Your task to perform on an android device: find snoozed emails in the gmail app Image 0: 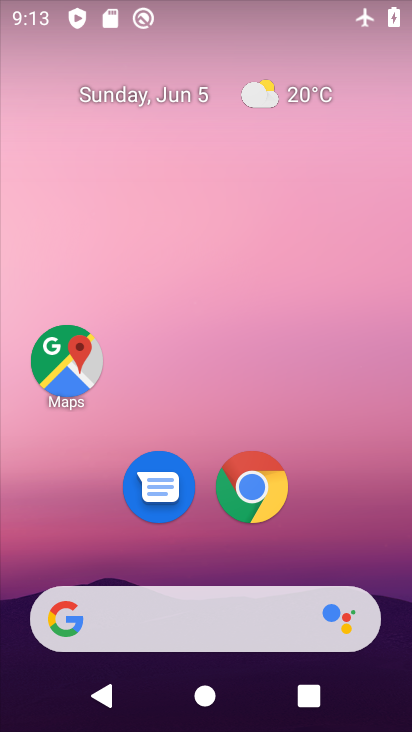
Step 0: drag from (352, 622) to (330, 149)
Your task to perform on an android device: find snoozed emails in the gmail app Image 1: 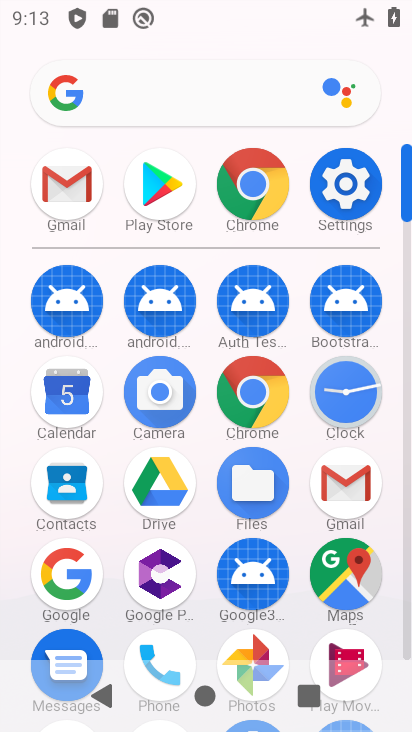
Step 1: click (370, 496)
Your task to perform on an android device: find snoozed emails in the gmail app Image 2: 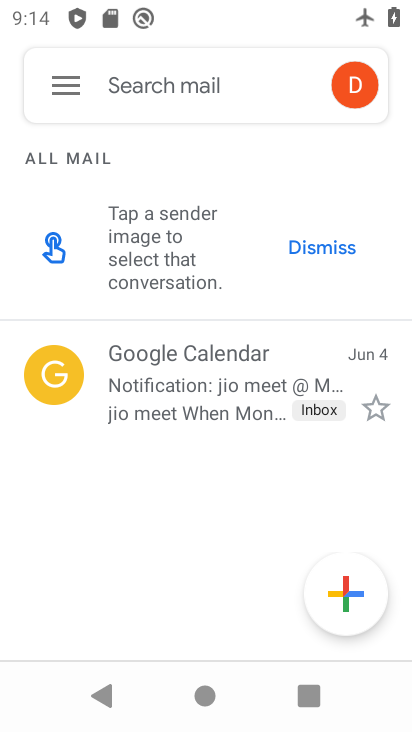
Step 2: click (73, 86)
Your task to perform on an android device: find snoozed emails in the gmail app Image 3: 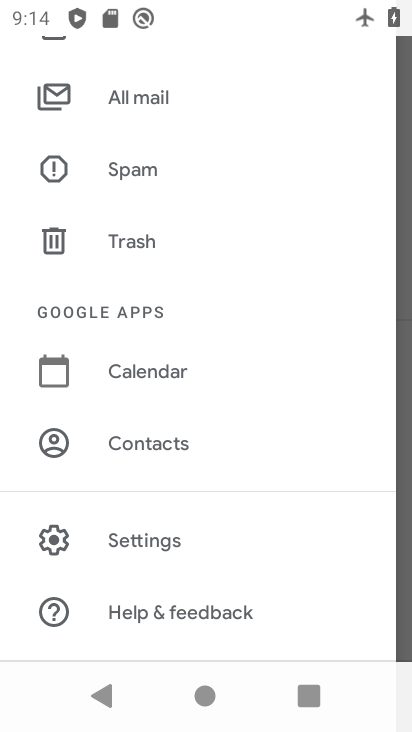
Step 3: drag from (108, 269) to (157, 617)
Your task to perform on an android device: find snoozed emails in the gmail app Image 4: 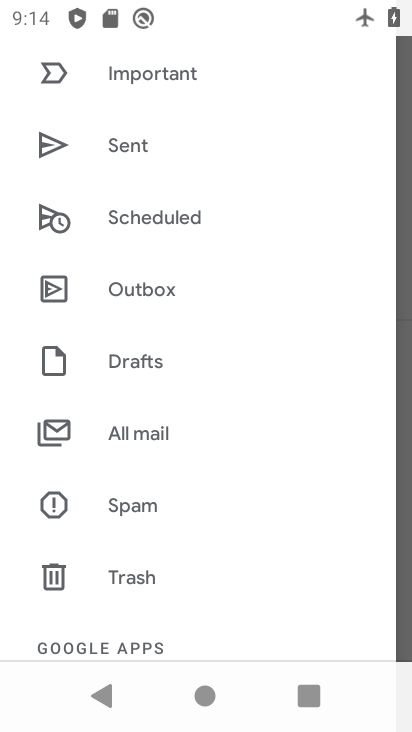
Step 4: drag from (195, 158) to (240, 724)
Your task to perform on an android device: find snoozed emails in the gmail app Image 5: 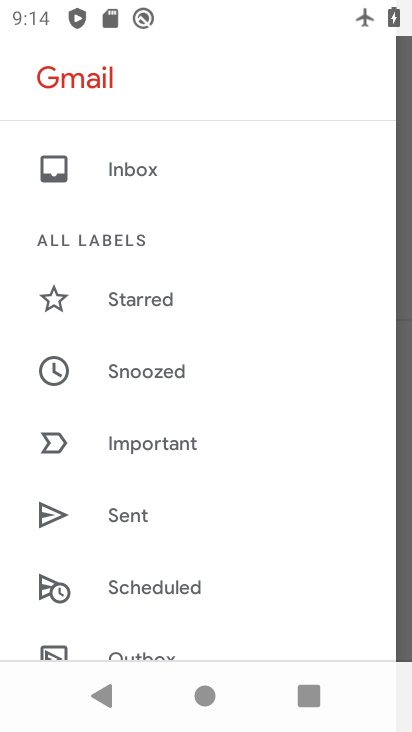
Step 5: click (160, 366)
Your task to perform on an android device: find snoozed emails in the gmail app Image 6: 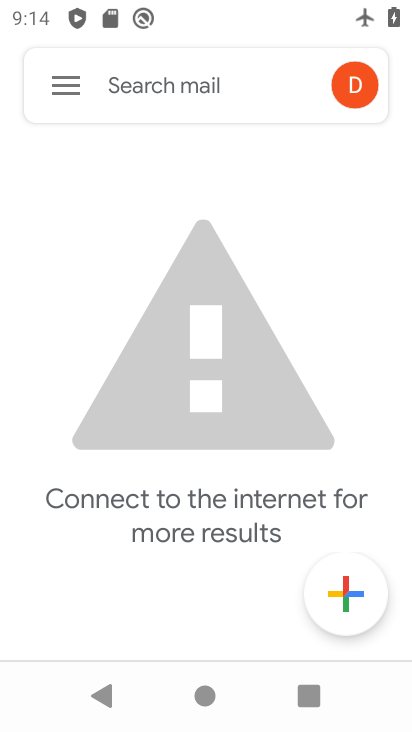
Step 6: task complete